Your task to perform on an android device: set default search engine in the chrome app Image 0: 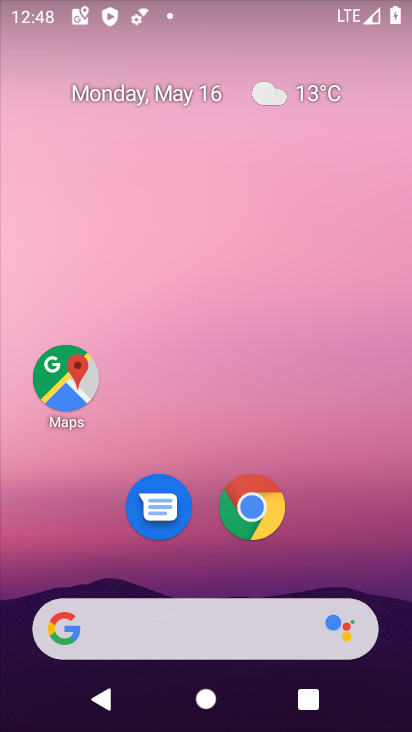
Step 0: click (262, 507)
Your task to perform on an android device: set default search engine in the chrome app Image 1: 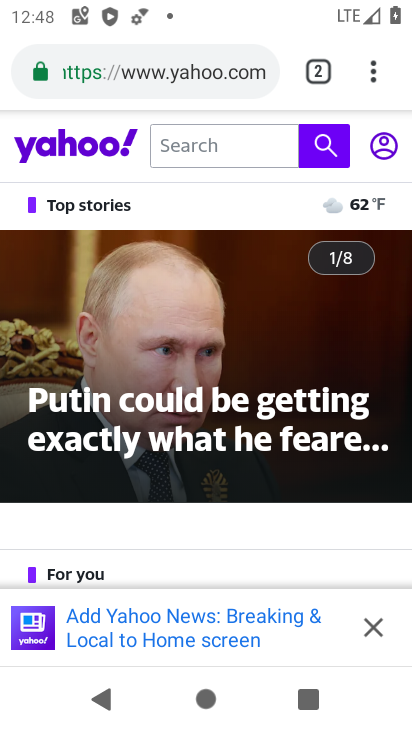
Step 1: click (364, 79)
Your task to perform on an android device: set default search engine in the chrome app Image 2: 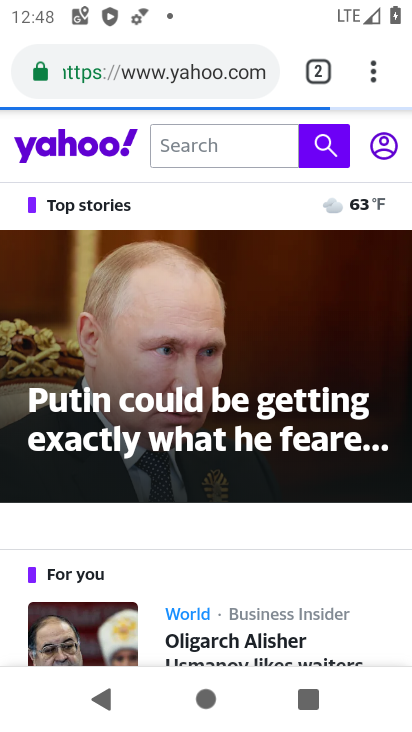
Step 2: click (375, 72)
Your task to perform on an android device: set default search engine in the chrome app Image 3: 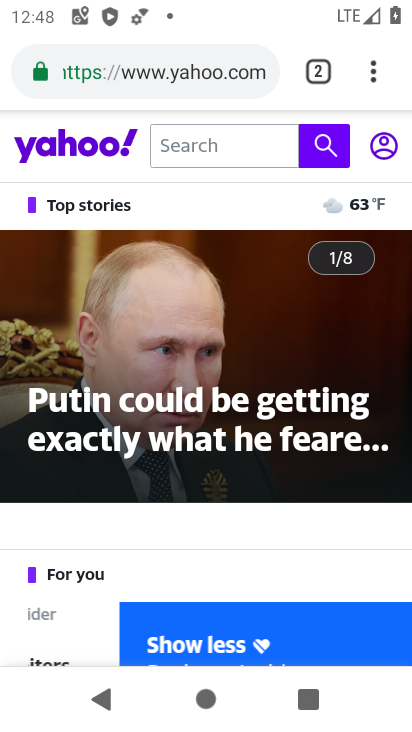
Step 3: click (375, 74)
Your task to perform on an android device: set default search engine in the chrome app Image 4: 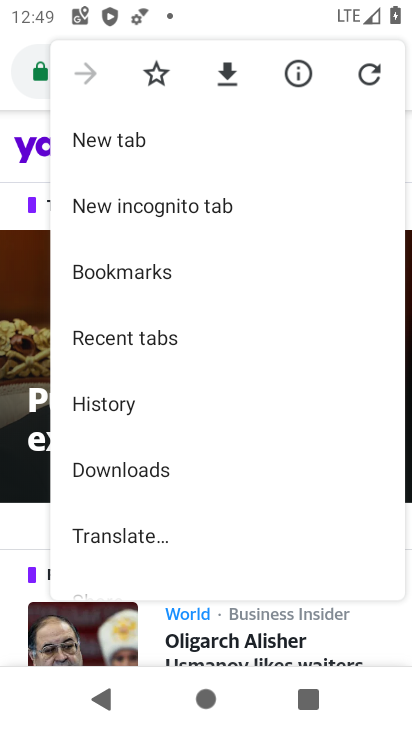
Step 4: drag from (223, 506) to (203, 145)
Your task to perform on an android device: set default search engine in the chrome app Image 5: 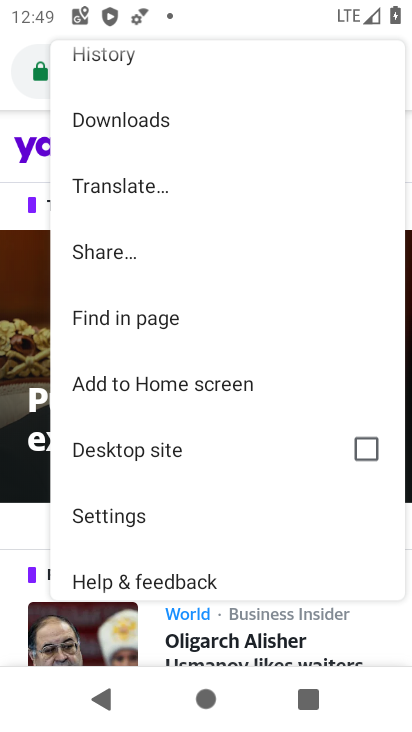
Step 5: click (142, 518)
Your task to perform on an android device: set default search engine in the chrome app Image 6: 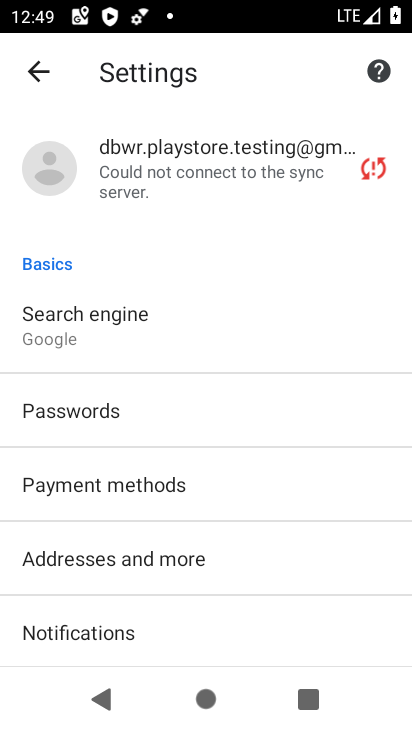
Step 6: click (132, 328)
Your task to perform on an android device: set default search engine in the chrome app Image 7: 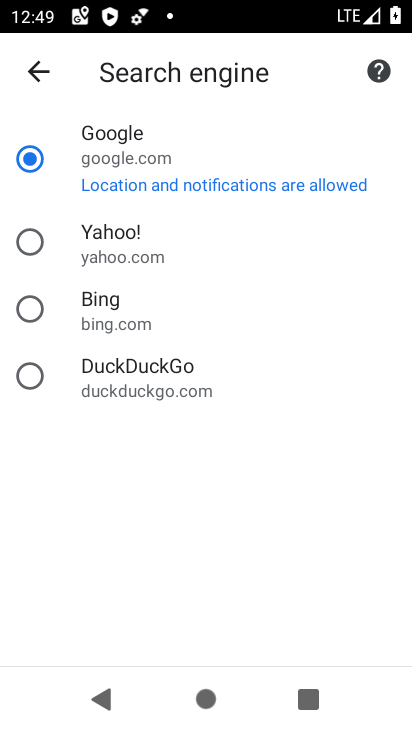
Step 7: click (177, 149)
Your task to perform on an android device: set default search engine in the chrome app Image 8: 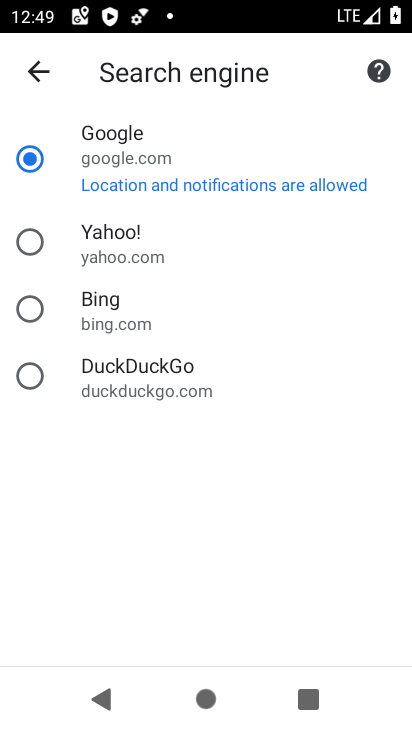
Step 8: task complete